Your task to perform on an android device: delete a single message in the gmail app Image 0: 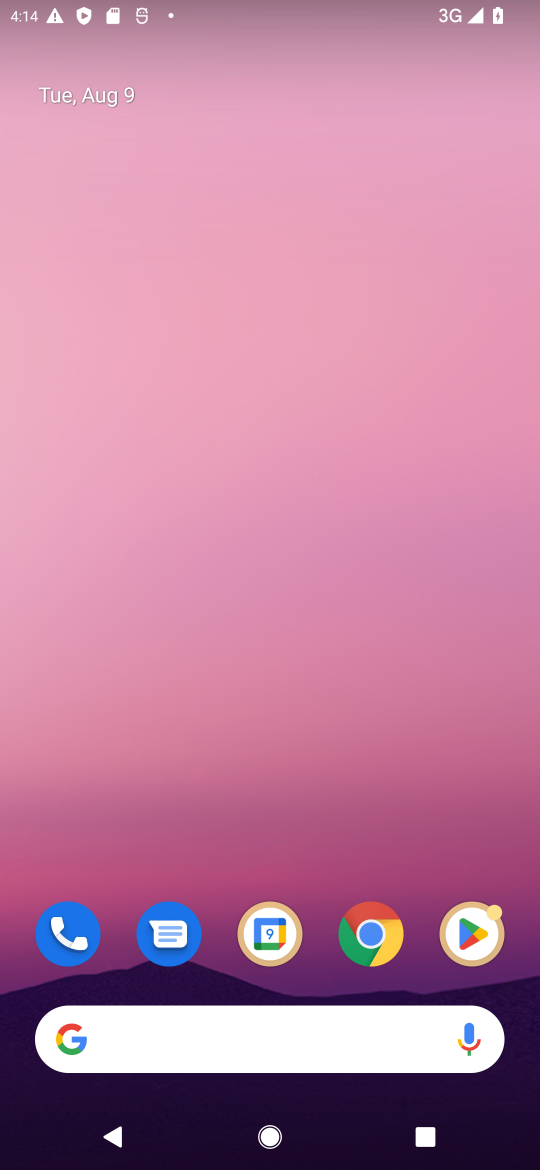
Step 0: drag from (327, 991) to (296, 315)
Your task to perform on an android device: delete a single message in the gmail app Image 1: 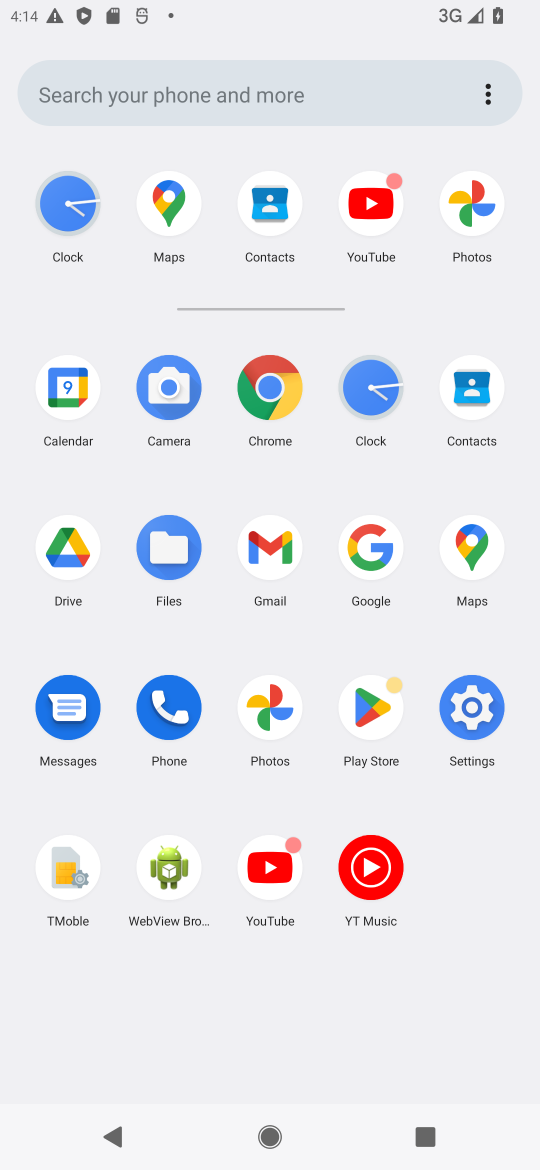
Step 1: click (295, 574)
Your task to perform on an android device: delete a single message in the gmail app Image 2: 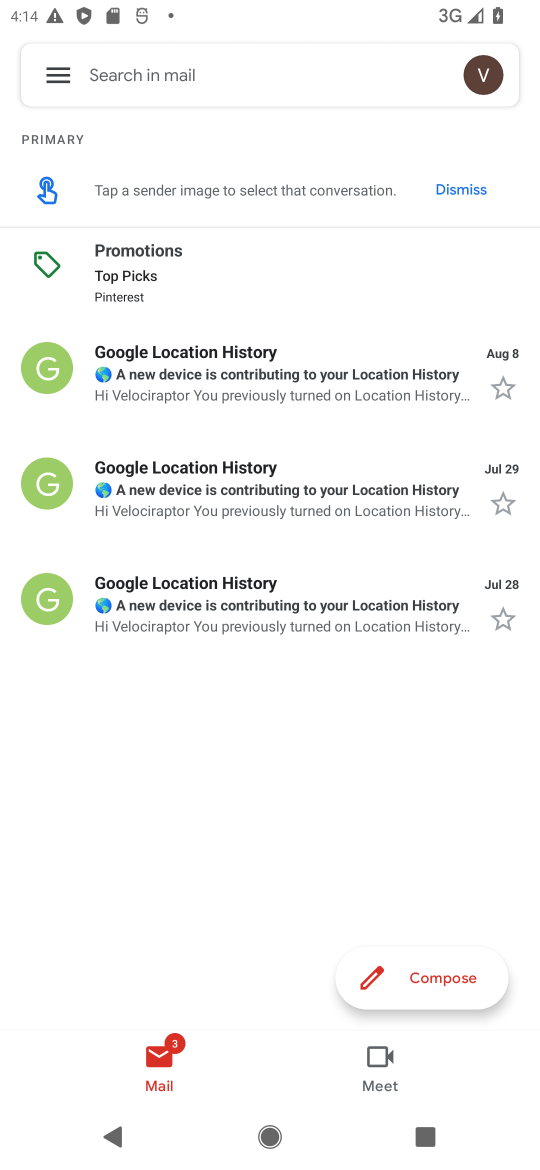
Step 2: click (41, 393)
Your task to perform on an android device: delete a single message in the gmail app Image 3: 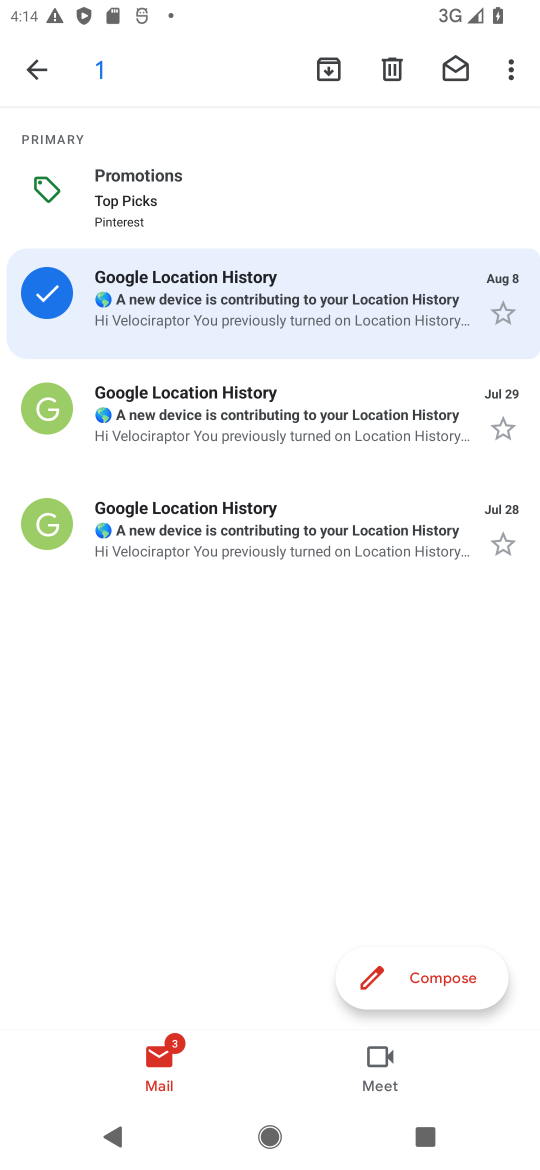
Step 3: click (392, 73)
Your task to perform on an android device: delete a single message in the gmail app Image 4: 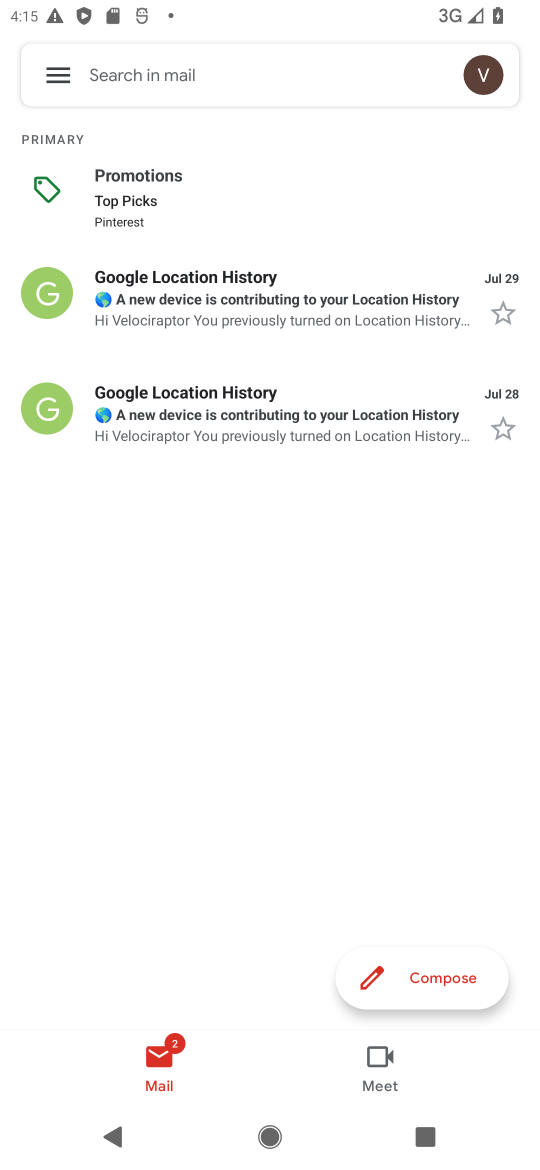
Step 4: task complete